Your task to perform on an android device: Show me productivity apps on the Play Store Image 0: 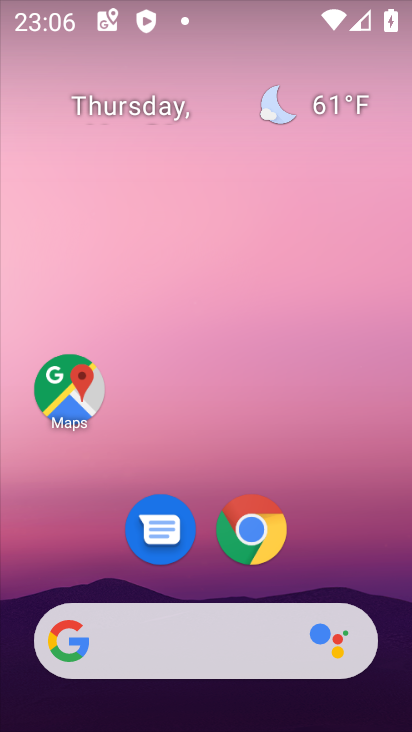
Step 0: drag from (339, 553) to (286, 10)
Your task to perform on an android device: Show me productivity apps on the Play Store Image 1: 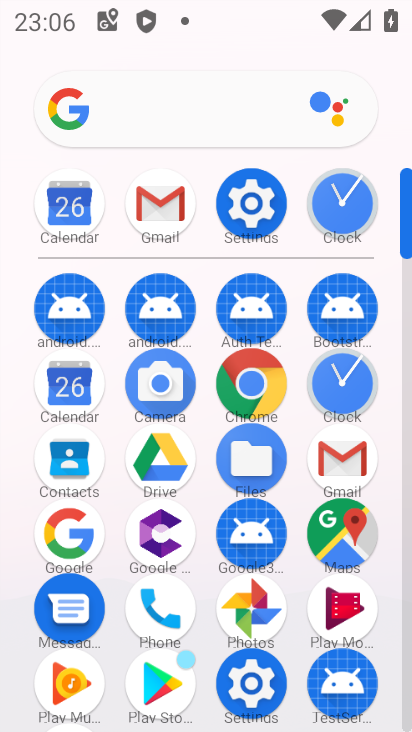
Step 1: click (160, 678)
Your task to perform on an android device: Show me productivity apps on the Play Store Image 2: 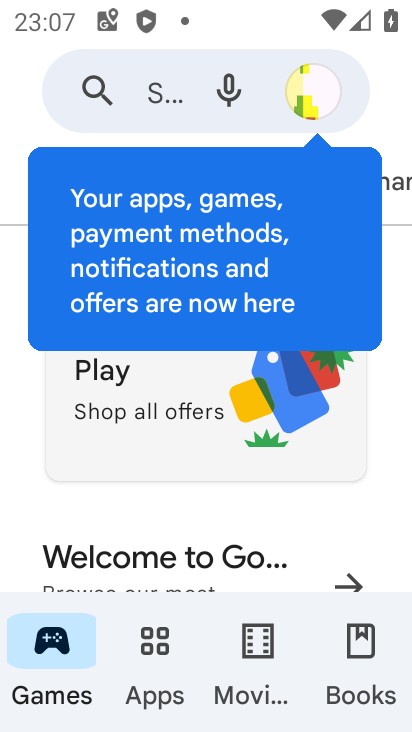
Step 2: click (162, 672)
Your task to perform on an android device: Show me productivity apps on the Play Store Image 3: 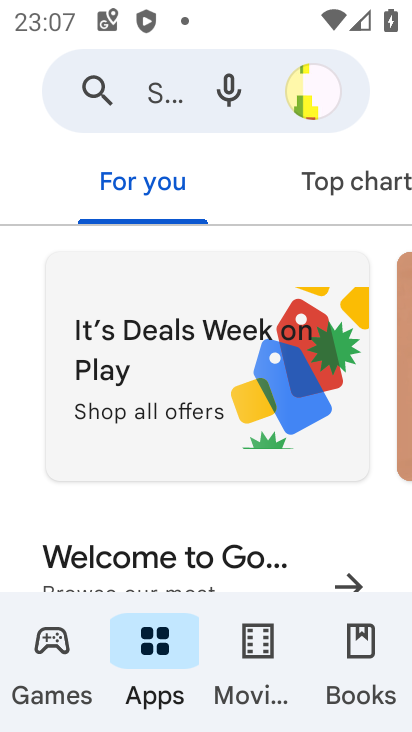
Step 3: click (322, 182)
Your task to perform on an android device: Show me productivity apps on the Play Store Image 4: 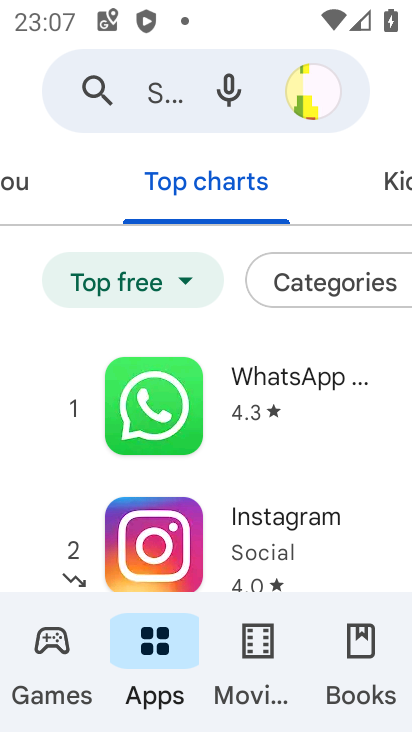
Step 4: click (339, 290)
Your task to perform on an android device: Show me productivity apps on the Play Store Image 5: 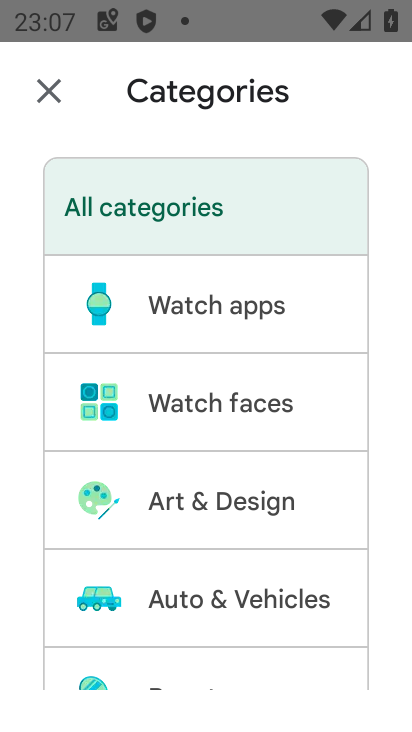
Step 5: drag from (279, 573) to (267, 419)
Your task to perform on an android device: Show me productivity apps on the Play Store Image 6: 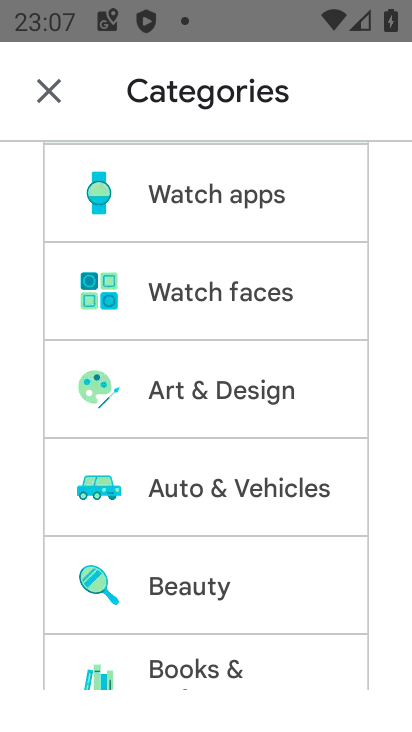
Step 6: drag from (177, 618) to (173, 334)
Your task to perform on an android device: Show me productivity apps on the Play Store Image 7: 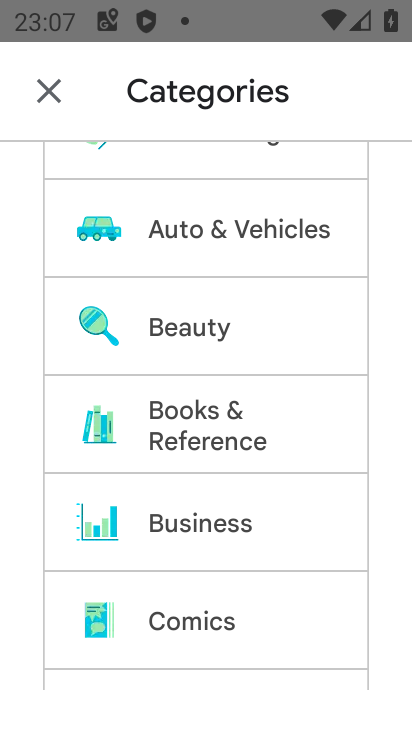
Step 7: drag from (277, 585) to (272, 332)
Your task to perform on an android device: Show me productivity apps on the Play Store Image 8: 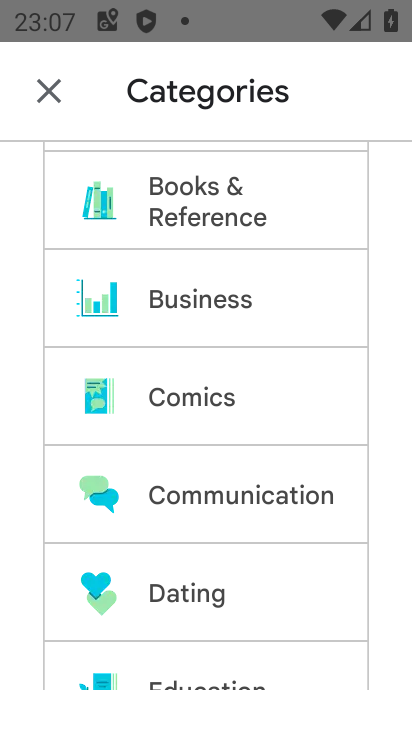
Step 8: drag from (195, 597) to (194, 372)
Your task to perform on an android device: Show me productivity apps on the Play Store Image 9: 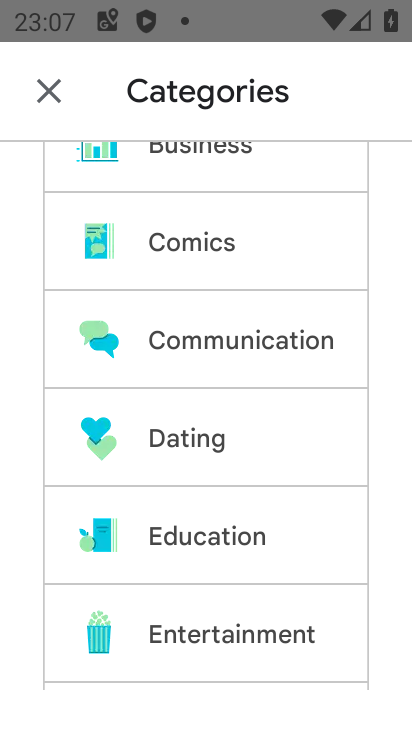
Step 9: drag from (183, 548) to (183, 390)
Your task to perform on an android device: Show me productivity apps on the Play Store Image 10: 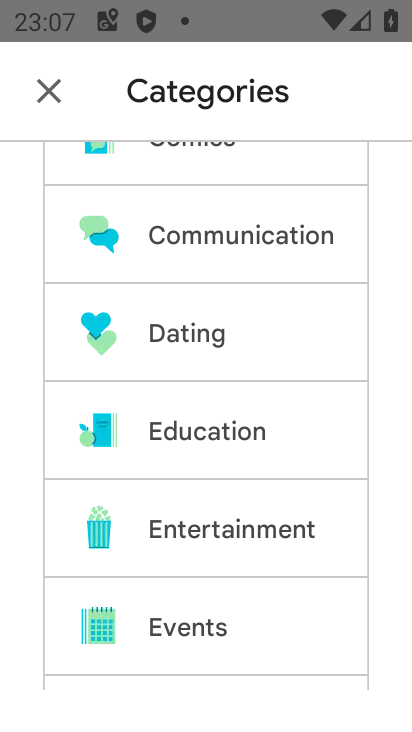
Step 10: drag from (236, 644) to (235, 372)
Your task to perform on an android device: Show me productivity apps on the Play Store Image 11: 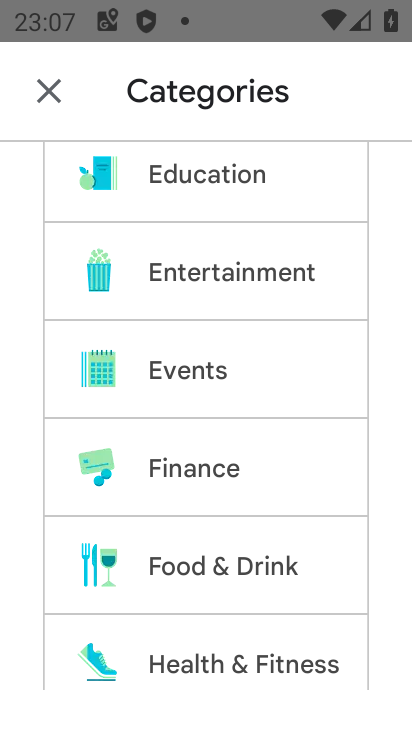
Step 11: drag from (228, 662) to (229, 453)
Your task to perform on an android device: Show me productivity apps on the Play Store Image 12: 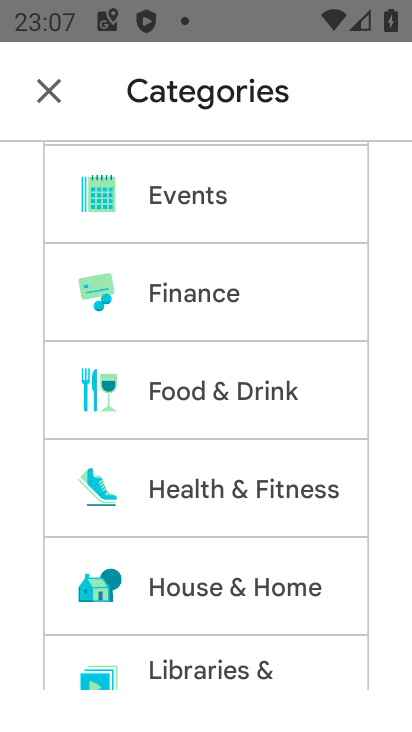
Step 12: drag from (245, 638) to (257, 480)
Your task to perform on an android device: Show me productivity apps on the Play Store Image 13: 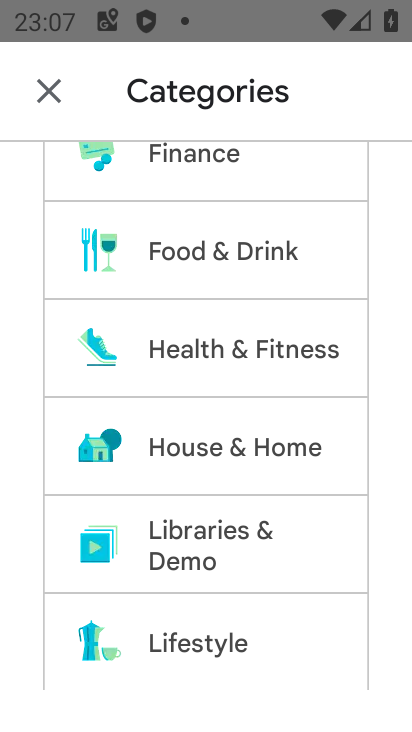
Step 13: drag from (245, 643) to (245, 479)
Your task to perform on an android device: Show me productivity apps on the Play Store Image 14: 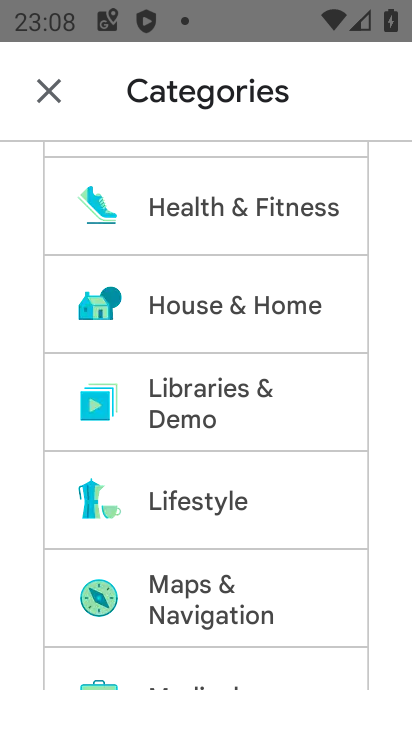
Step 14: drag from (266, 576) to (266, 497)
Your task to perform on an android device: Show me productivity apps on the Play Store Image 15: 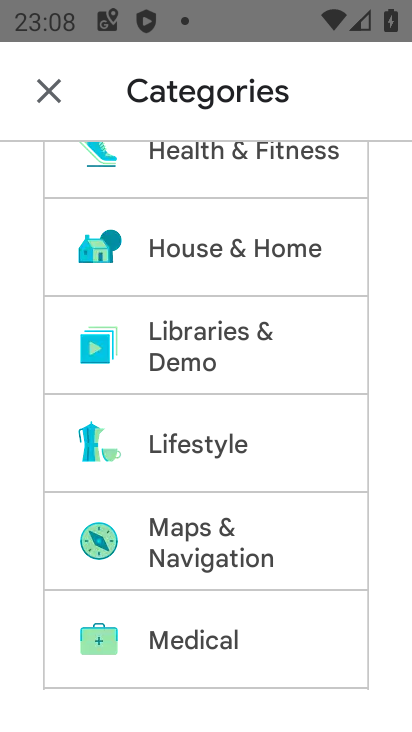
Step 15: drag from (237, 640) to (237, 442)
Your task to perform on an android device: Show me productivity apps on the Play Store Image 16: 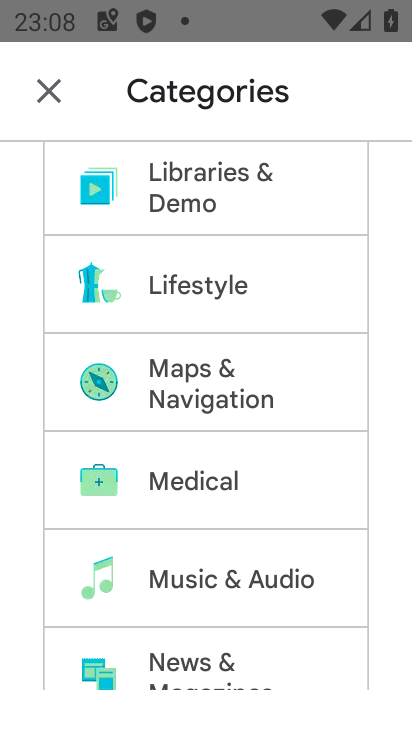
Step 16: drag from (208, 630) to (211, 388)
Your task to perform on an android device: Show me productivity apps on the Play Store Image 17: 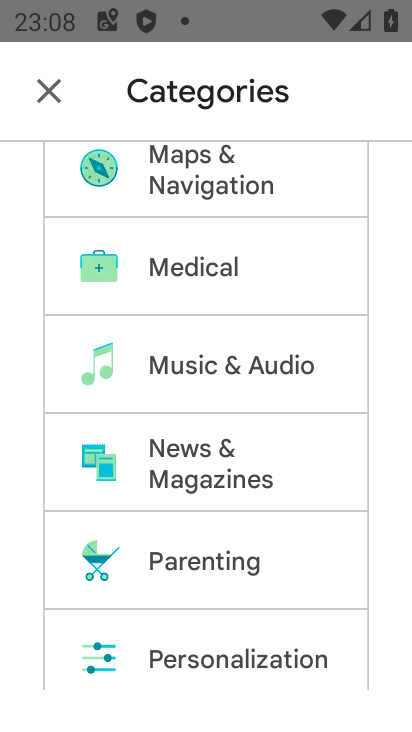
Step 17: drag from (257, 598) to (263, 456)
Your task to perform on an android device: Show me productivity apps on the Play Store Image 18: 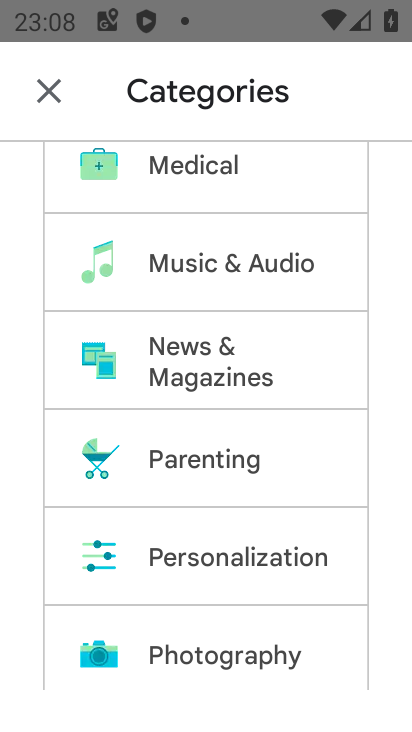
Step 18: drag from (252, 628) to (252, 510)
Your task to perform on an android device: Show me productivity apps on the Play Store Image 19: 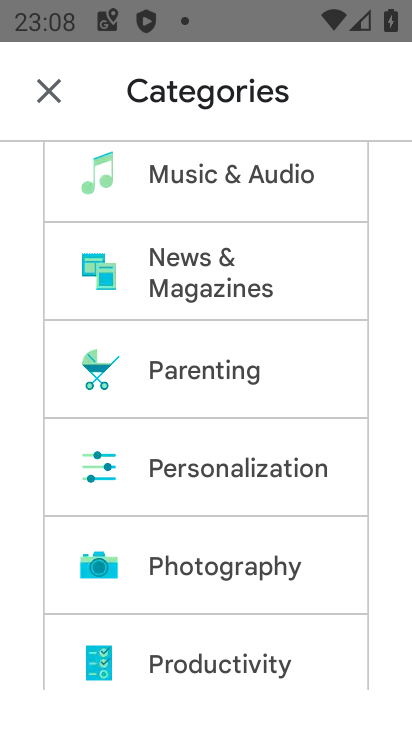
Step 19: click (243, 650)
Your task to perform on an android device: Show me productivity apps on the Play Store Image 20: 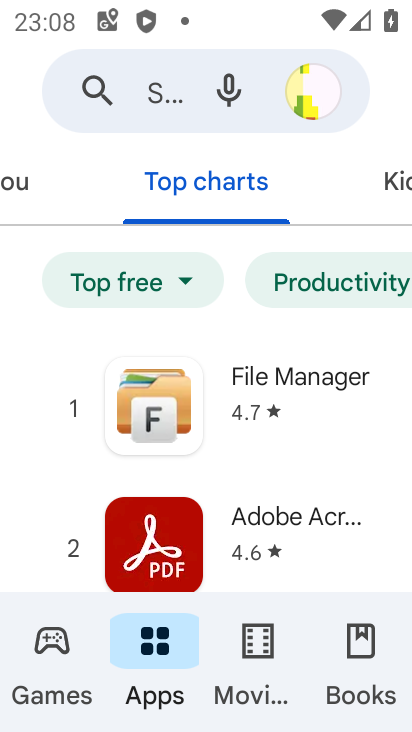
Step 20: task complete